Your task to perform on an android device: open a bookmark in the chrome app Image 0: 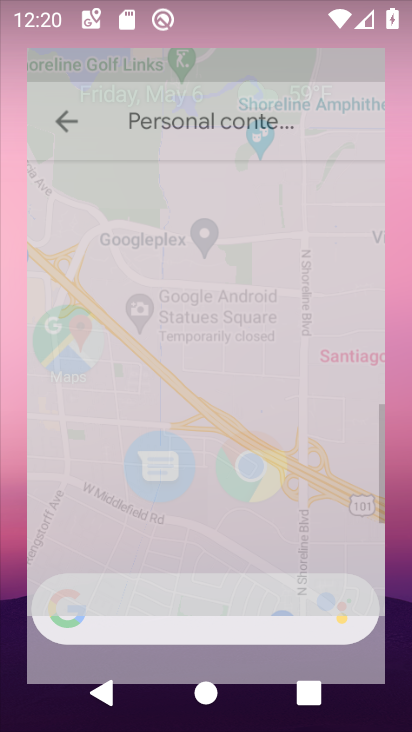
Step 0: drag from (385, 471) to (346, 134)
Your task to perform on an android device: open a bookmark in the chrome app Image 1: 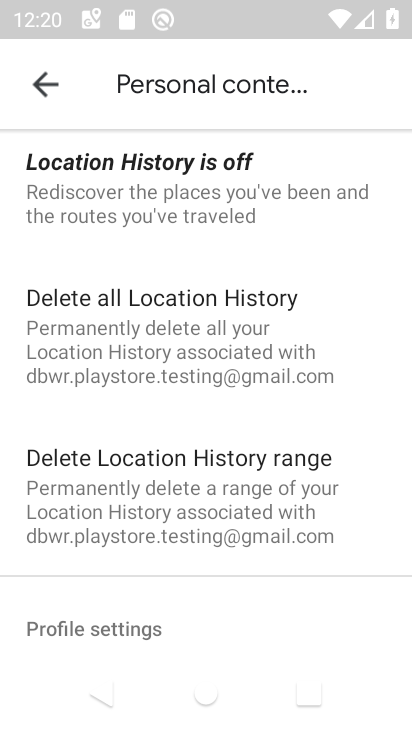
Step 1: press home button
Your task to perform on an android device: open a bookmark in the chrome app Image 2: 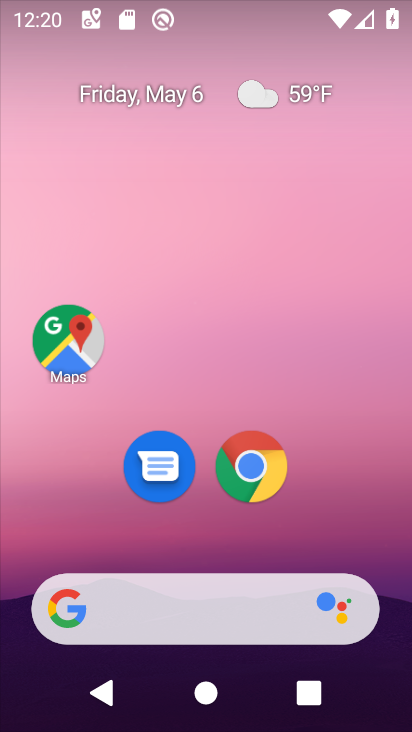
Step 2: click (264, 453)
Your task to perform on an android device: open a bookmark in the chrome app Image 3: 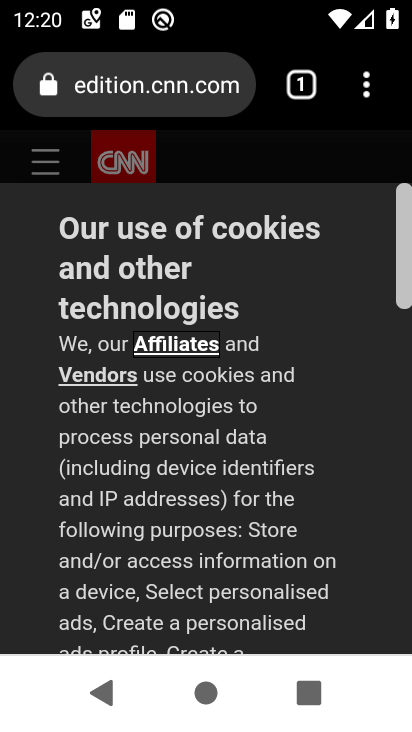
Step 3: drag from (383, 91) to (285, 347)
Your task to perform on an android device: open a bookmark in the chrome app Image 4: 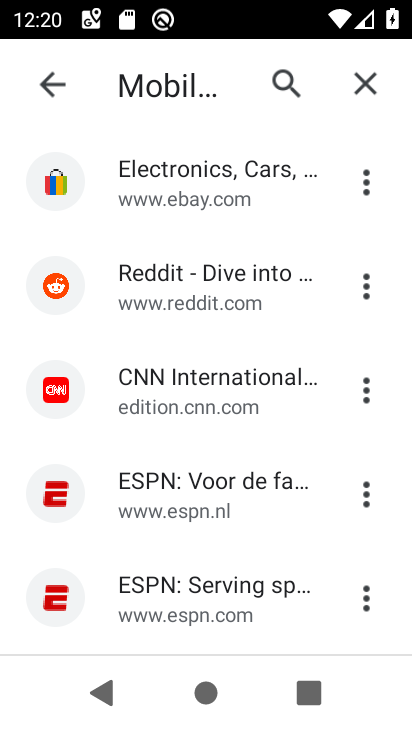
Step 4: click (273, 399)
Your task to perform on an android device: open a bookmark in the chrome app Image 5: 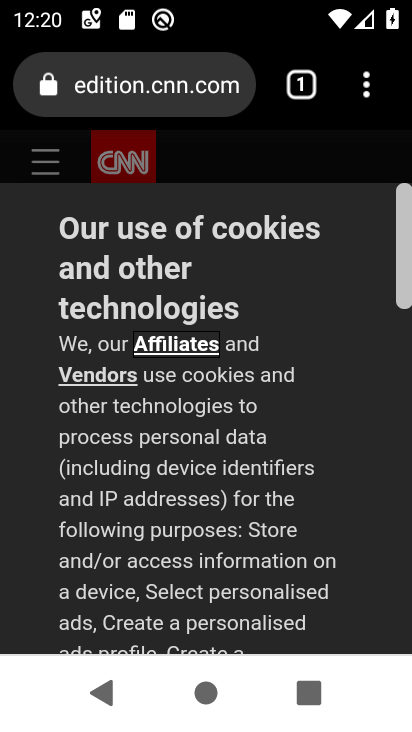
Step 5: task complete